Your task to perform on an android device: Show me popular games on the Play Store Image 0: 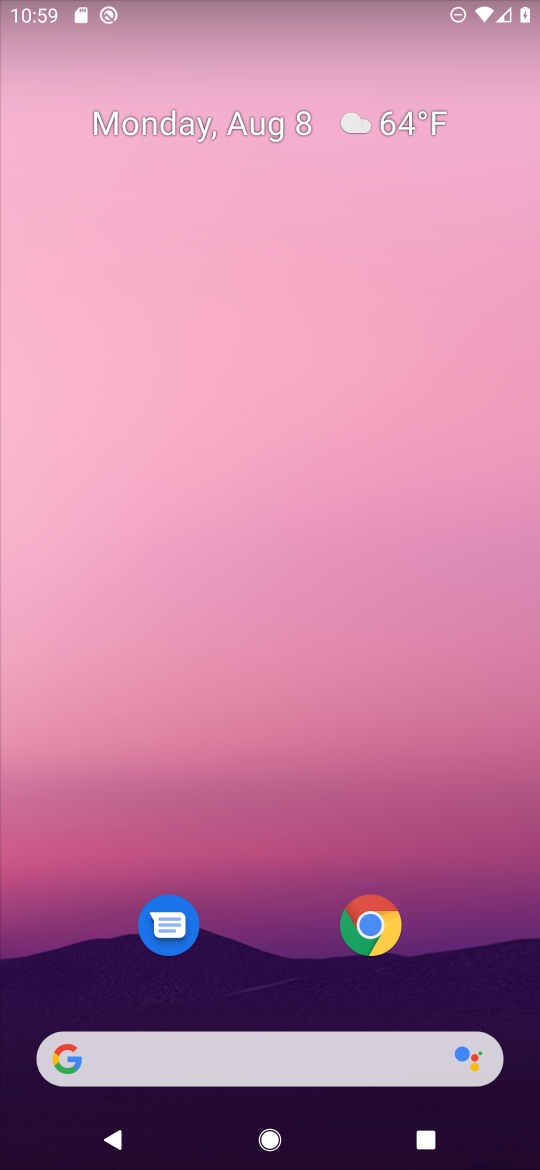
Step 0: drag from (274, 936) to (357, 109)
Your task to perform on an android device: Show me popular games on the Play Store Image 1: 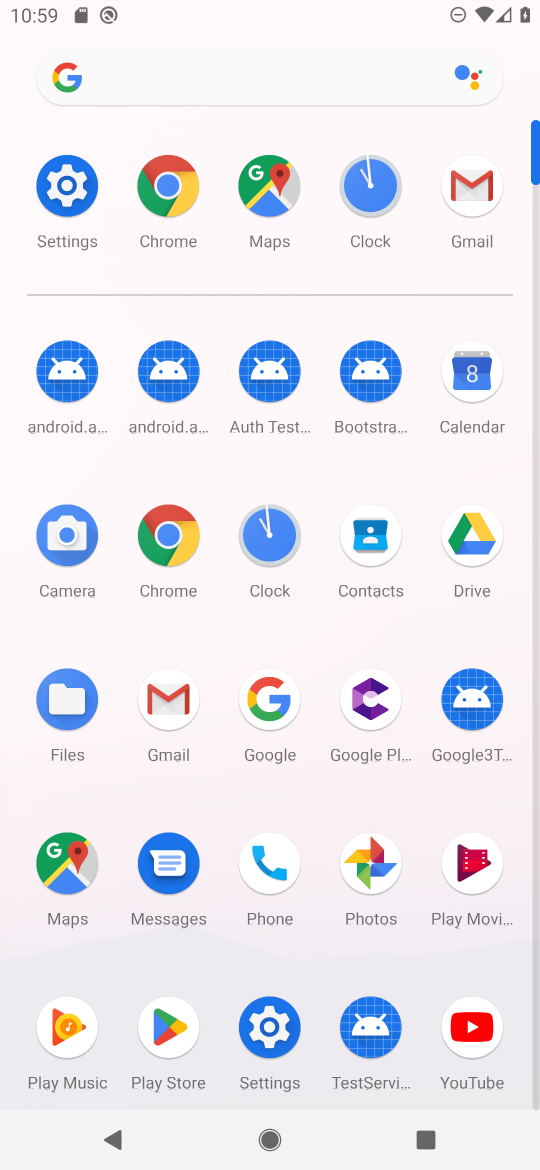
Step 1: click (158, 1037)
Your task to perform on an android device: Show me popular games on the Play Store Image 2: 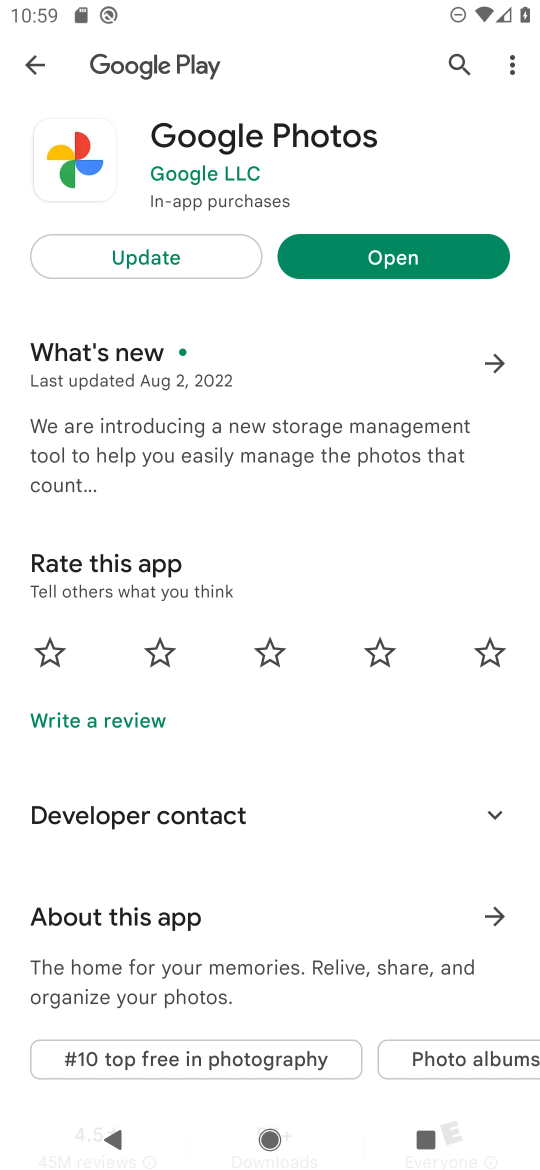
Step 2: click (35, 59)
Your task to perform on an android device: Show me popular games on the Play Store Image 3: 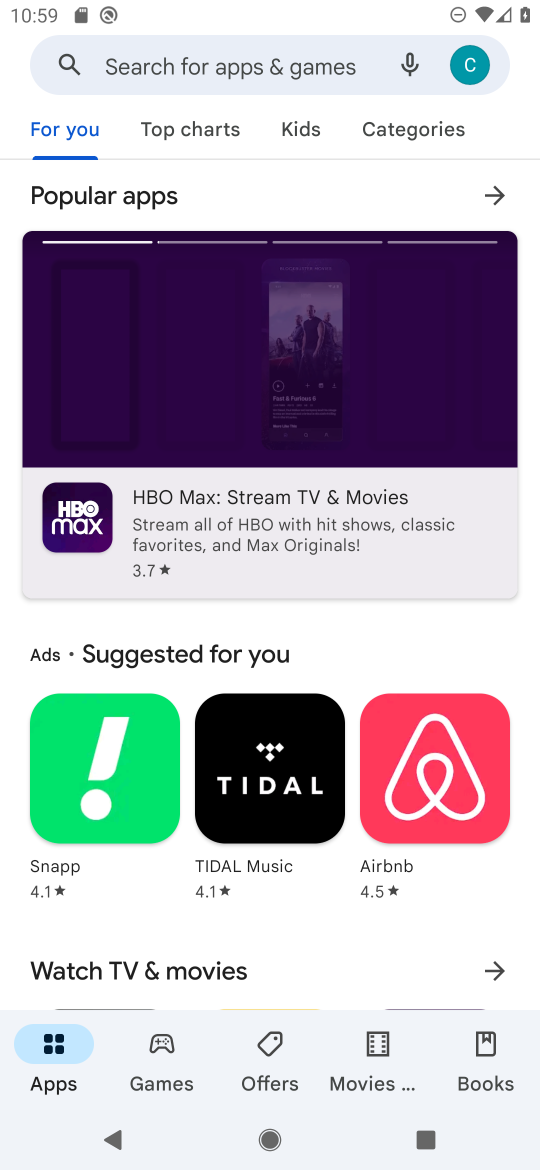
Step 3: click (157, 1070)
Your task to perform on an android device: Show me popular games on the Play Store Image 4: 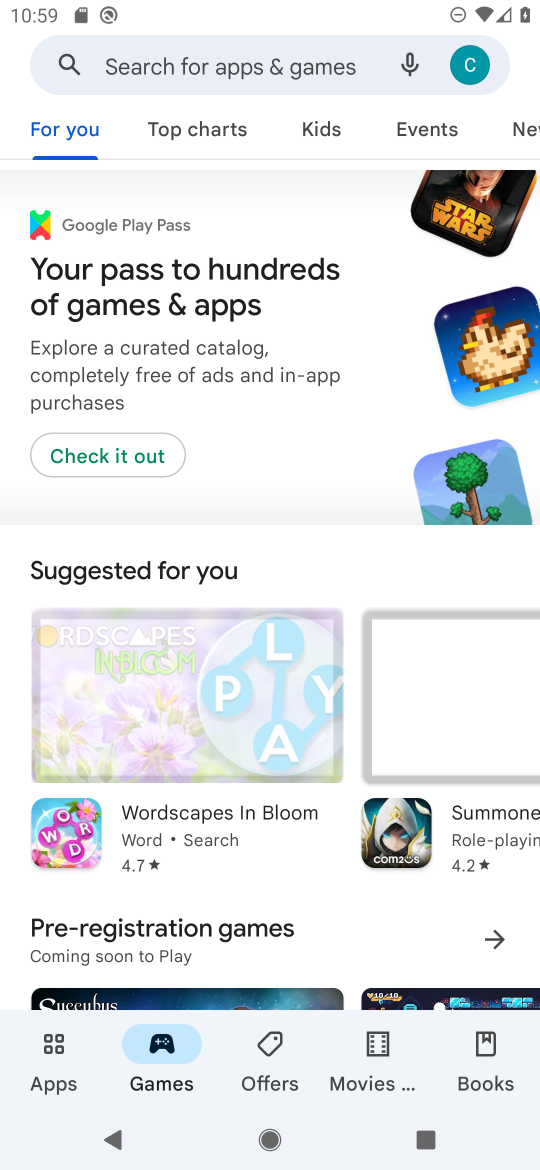
Step 4: drag from (195, 840) to (275, 114)
Your task to perform on an android device: Show me popular games on the Play Store Image 5: 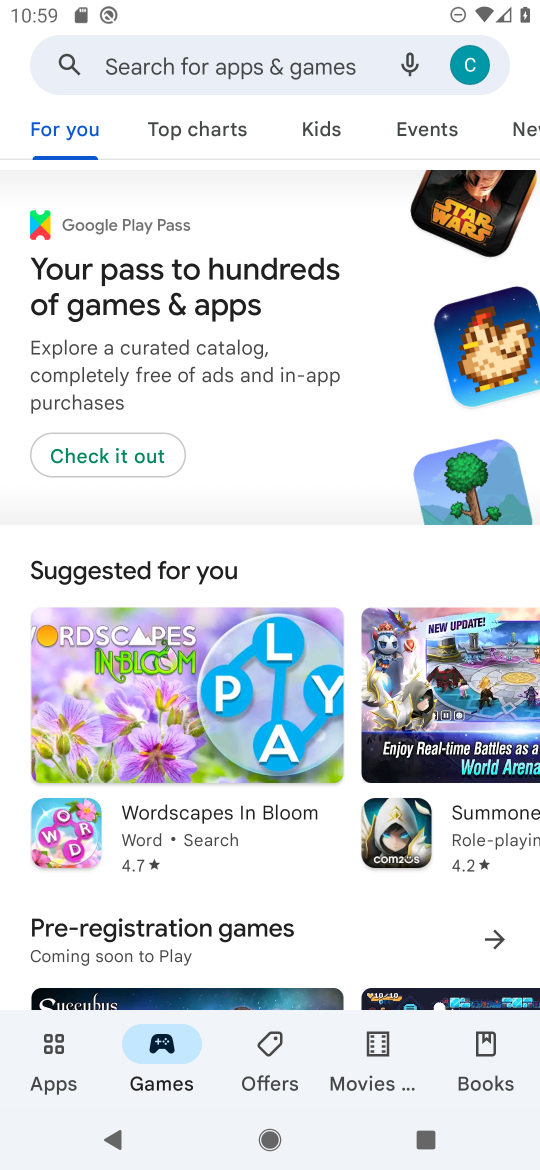
Step 5: drag from (327, 894) to (443, 262)
Your task to perform on an android device: Show me popular games on the Play Store Image 6: 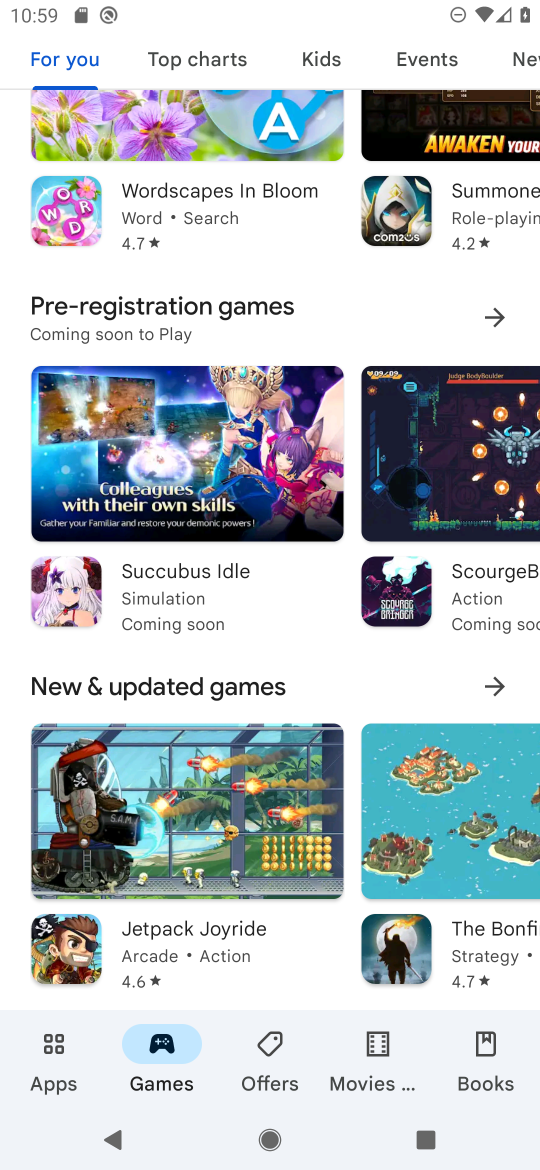
Step 6: drag from (338, 942) to (420, 137)
Your task to perform on an android device: Show me popular games on the Play Store Image 7: 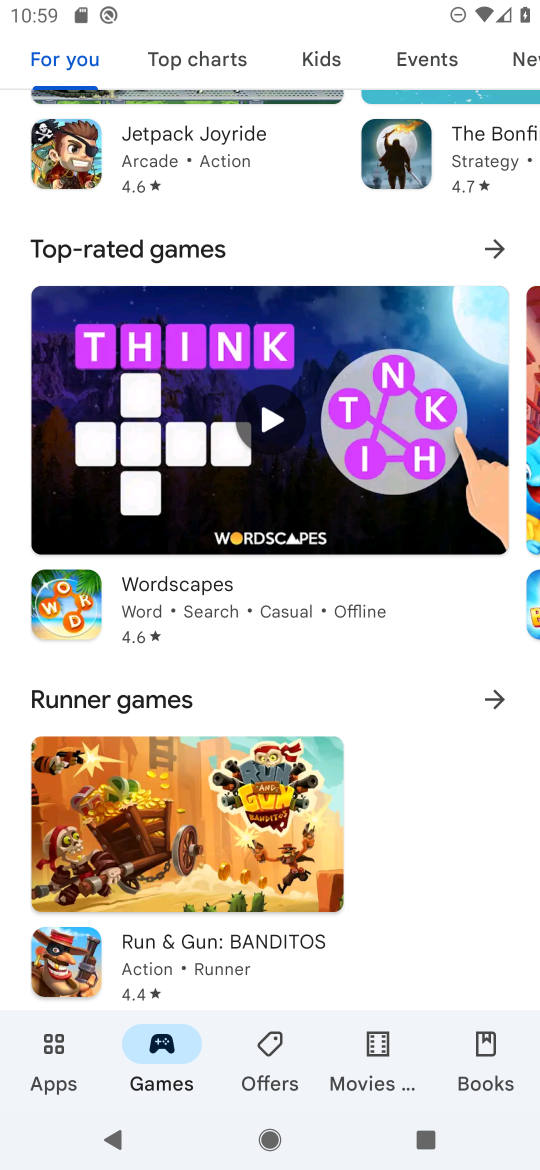
Step 7: drag from (375, 894) to (459, 148)
Your task to perform on an android device: Show me popular games on the Play Store Image 8: 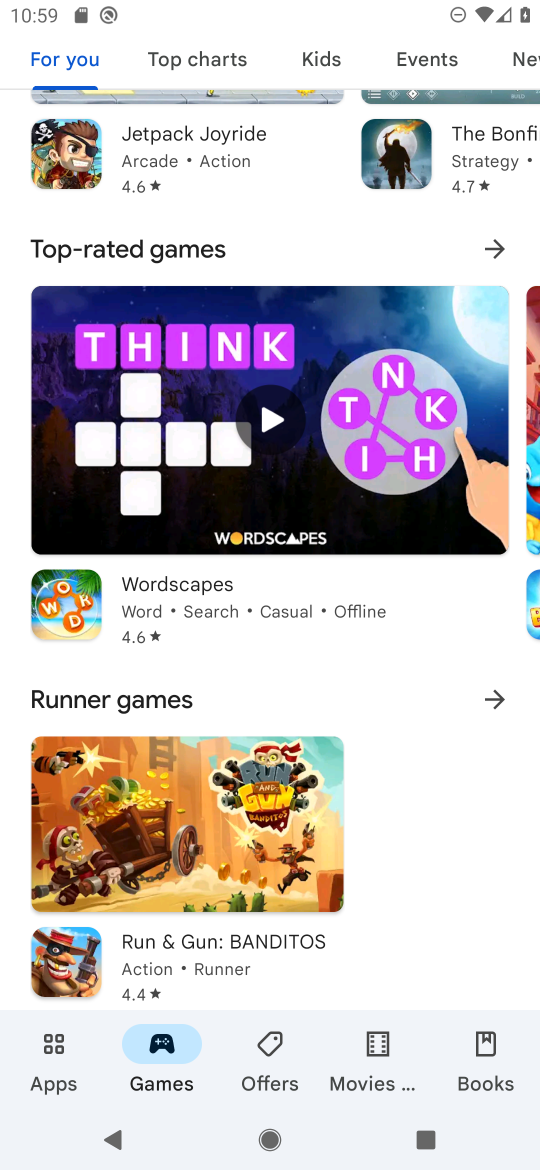
Step 8: drag from (379, 832) to (434, 293)
Your task to perform on an android device: Show me popular games on the Play Store Image 9: 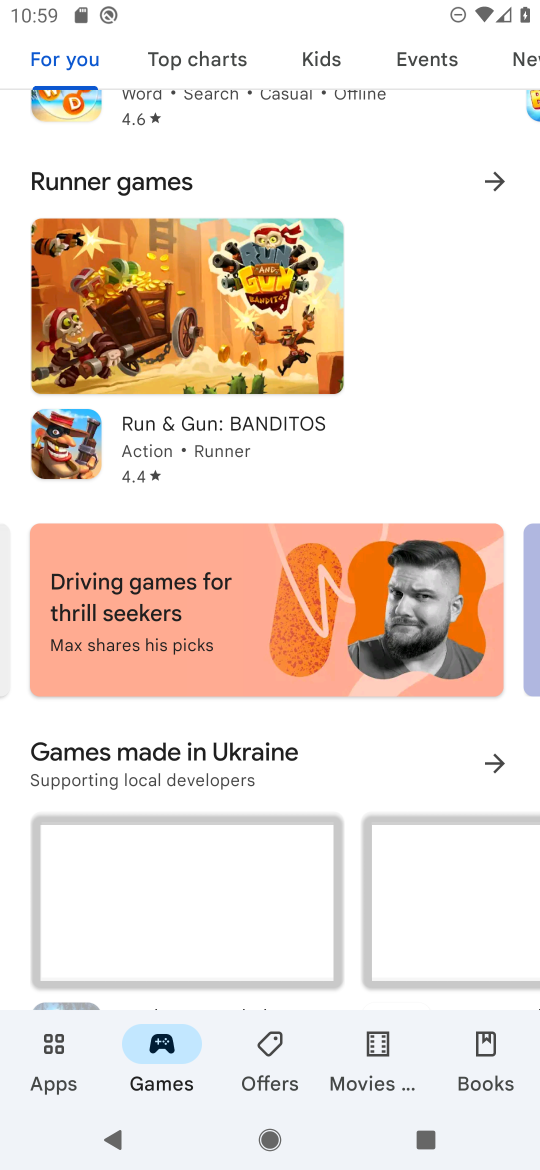
Step 9: click (336, 179)
Your task to perform on an android device: Show me popular games on the Play Store Image 10: 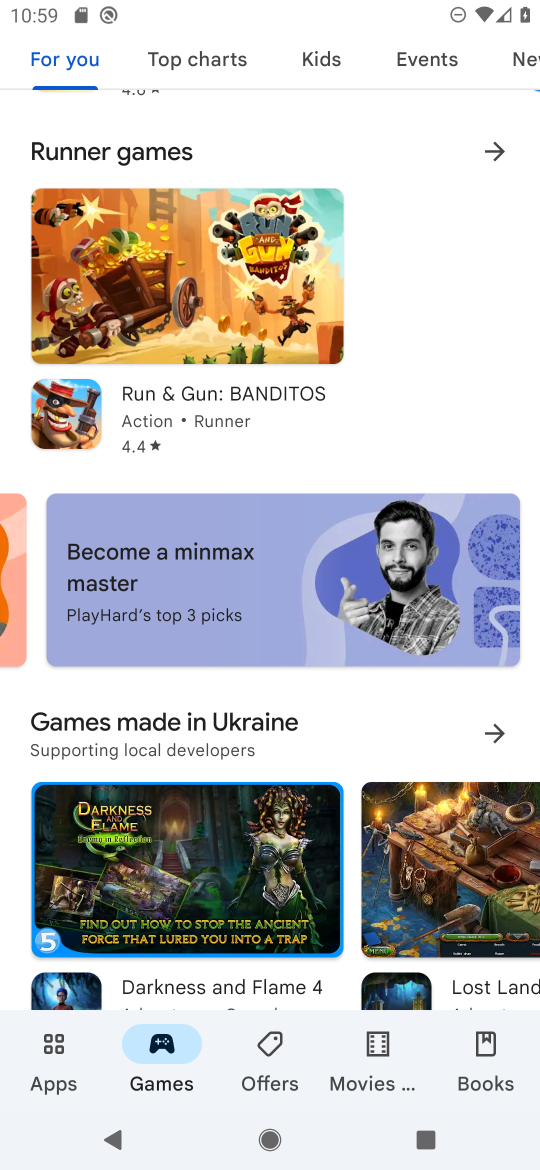
Step 10: task complete